Your task to perform on an android device: set the timer Image 0: 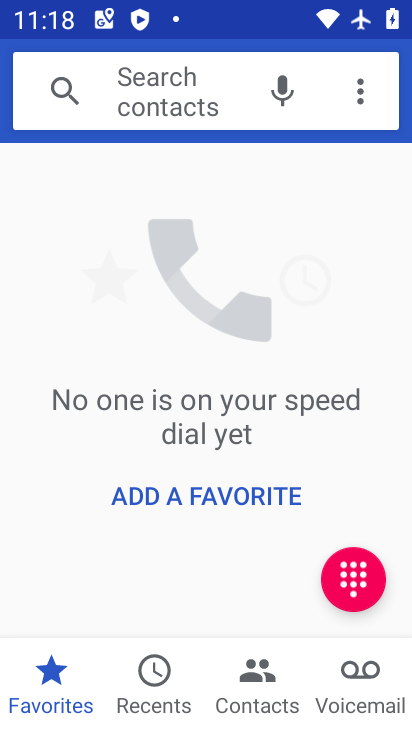
Step 0: press home button
Your task to perform on an android device: set the timer Image 1: 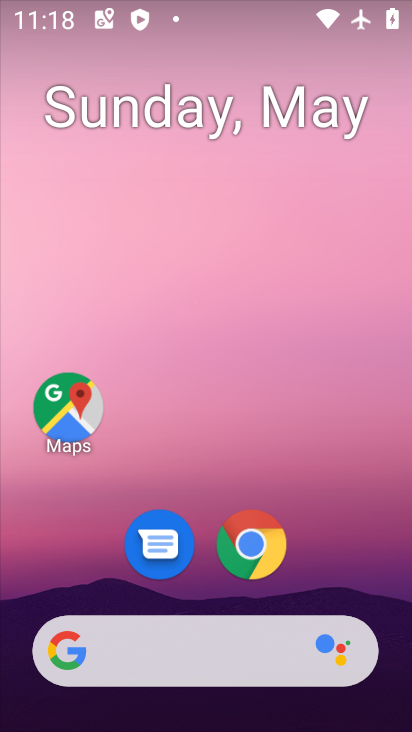
Step 1: drag from (316, 555) to (332, 328)
Your task to perform on an android device: set the timer Image 2: 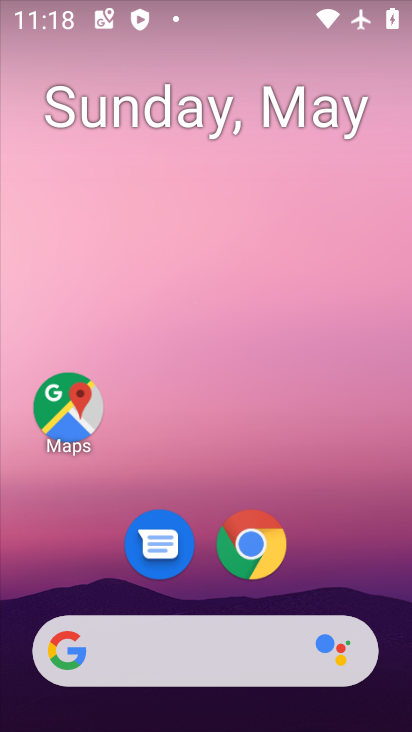
Step 2: drag from (318, 462) to (318, 403)
Your task to perform on an android device: set the timer Image 3: 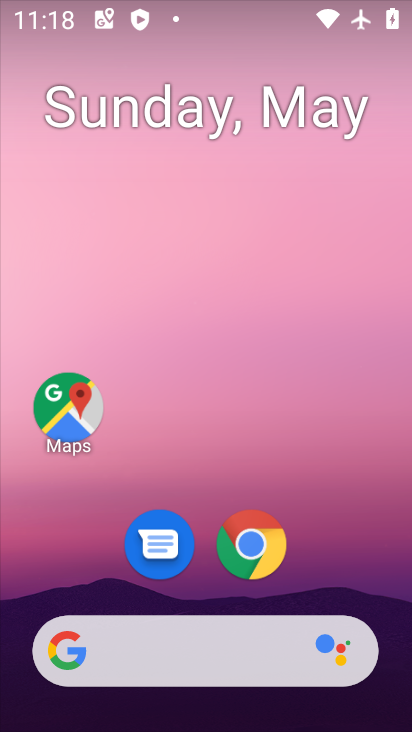
Step 3: drag from (317, 535) to (329, 277)
Your task to perform on an android device: set the timer Image 4: 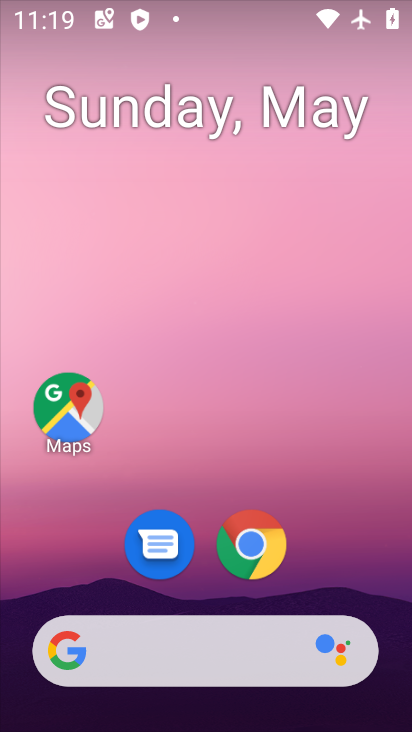
Step 4: drag from (305, 448) to (319, 295)
Your task to perform on an android device: set the timer Image 5: 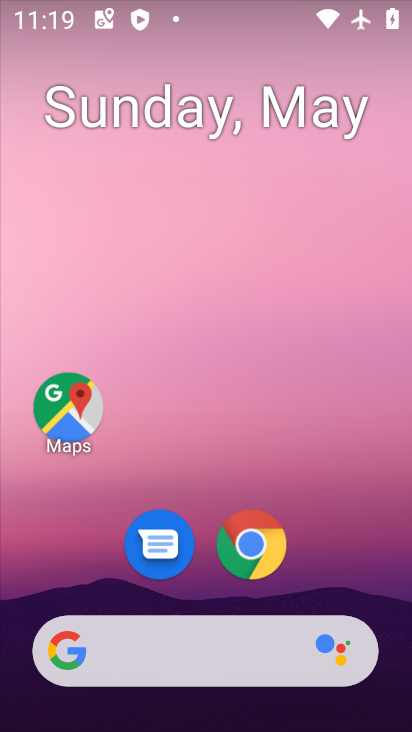
Step 5: drag from (311, 540) to (301, 234)
Your task to perform on an android device: set the timer Image 6: 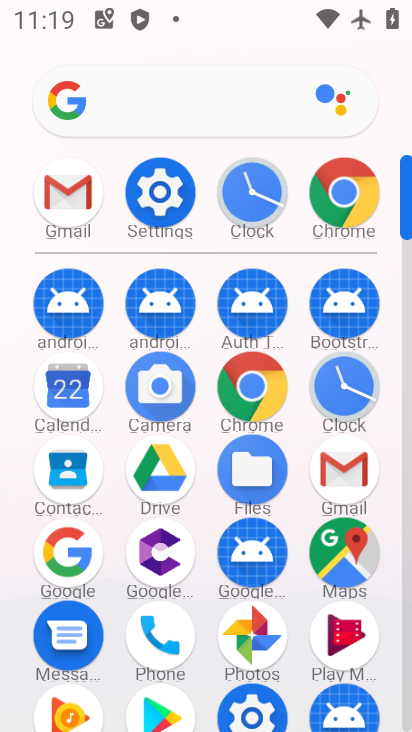
Step 6: click (344, 384)
Your task to perform on an android device: set the timer Image 7: 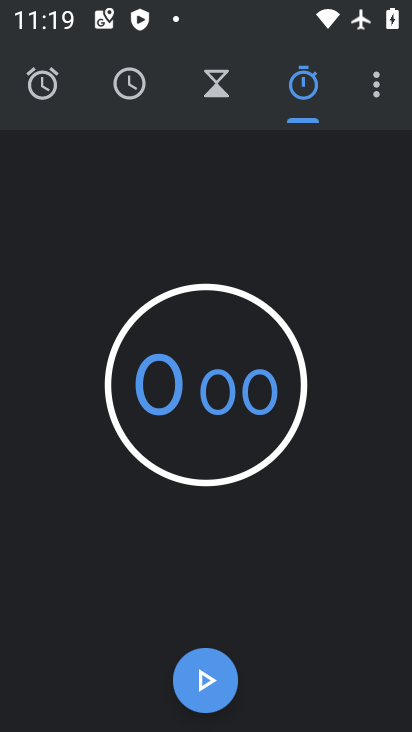
Step 7: click (196, 87)
Your task to perform on an android device: set the timer Image 8: 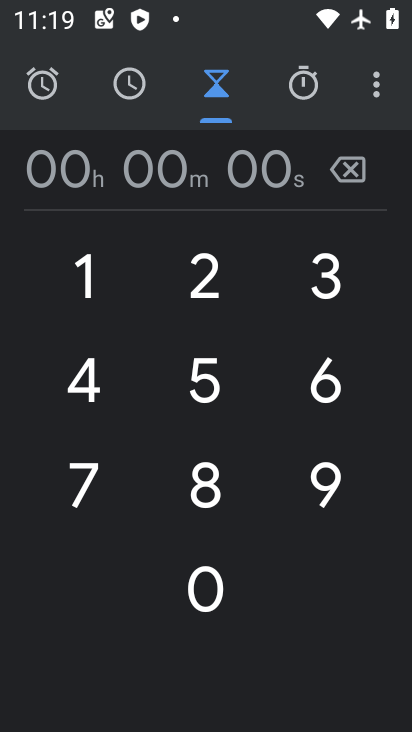
Step 8: click (193, 159)
Your task to perform on an android device: set the timer Image 9: 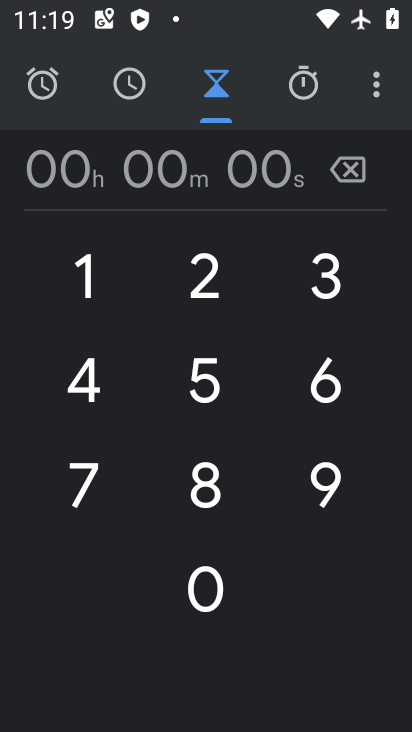
Step 9: type "09990009090"
Your task to perform on an android device: set the timer Image 10: 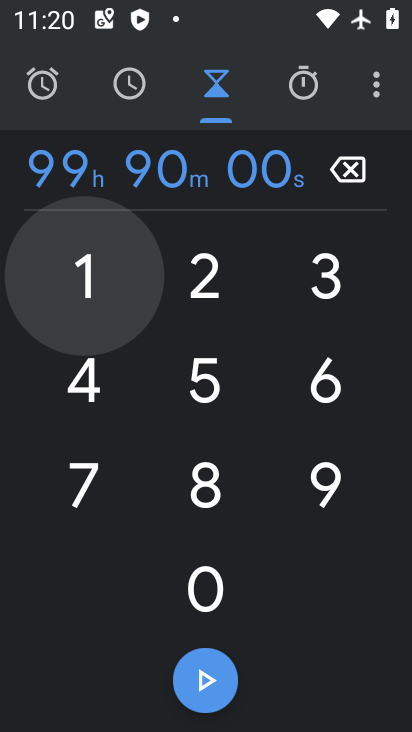
Step 10: task complete